Your task to perform on an android device: Go to Yahoo.com Image 0: 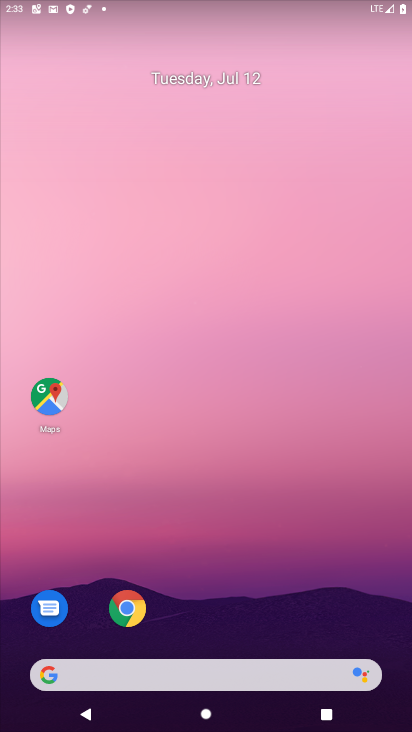
Step 0: click (123, 616)
Your task to perform on an android device: Go to Yahoo.com Image 1: 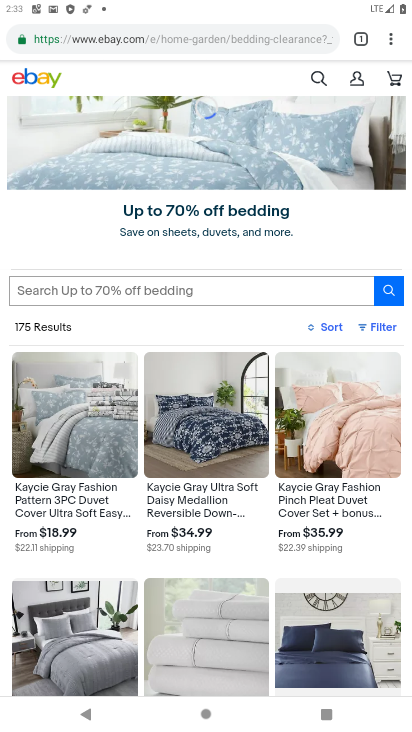
Step 1: press back button
Your task to perform on an android device: Go to Yahoo.com Image 2: 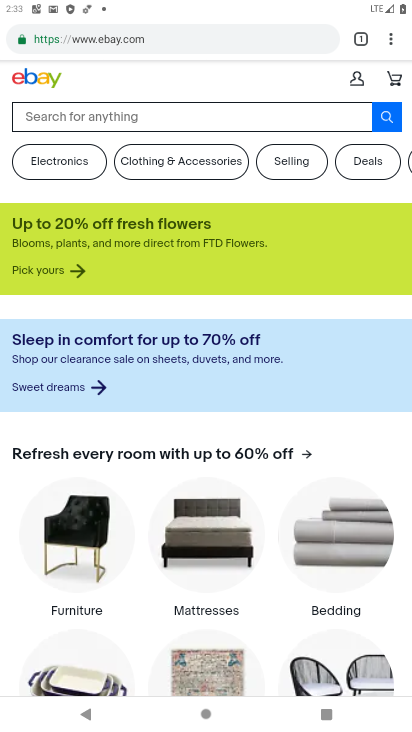
Step 2: press back button
Your task to perform on an android device: Go to Yahoo.com Image 3: 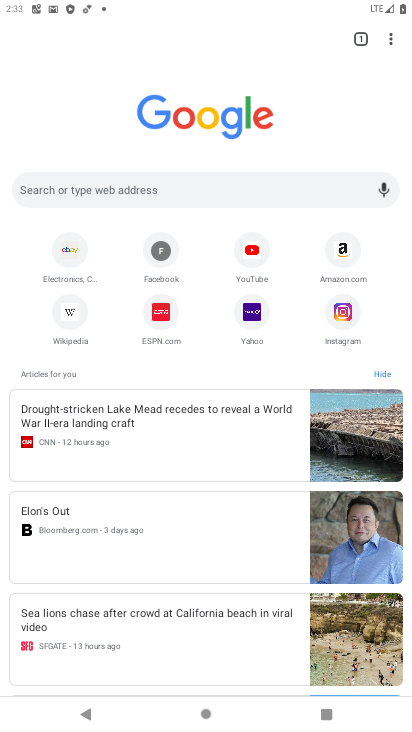
Step 3: click (253, 317)
Your task to perform on an android device: Go to Yahoo.com Image 4: 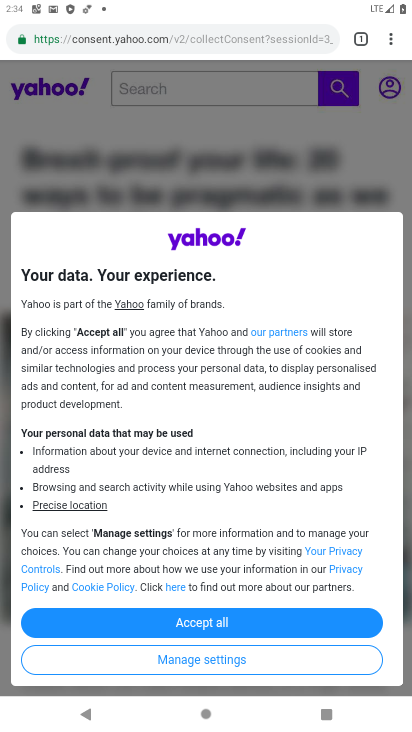
Step 4: task complete